Your task to perform on an android device: Show me popular games on the Play Store Image 0: 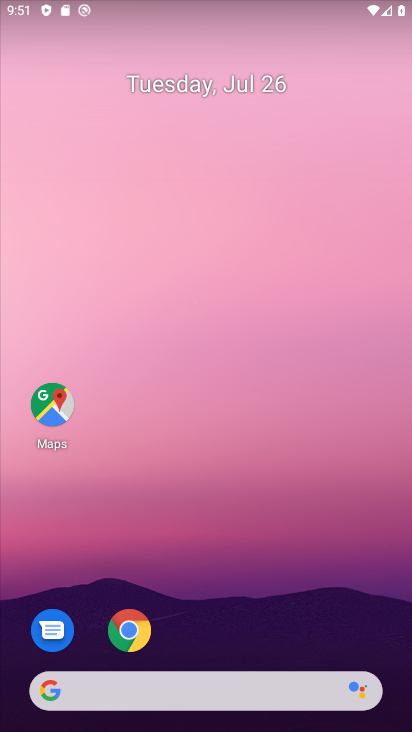
Step 0: drag from (359, 630) to (332, 146)
Your task to perform on an android device: Show me popular games on the Play Store Image 1: 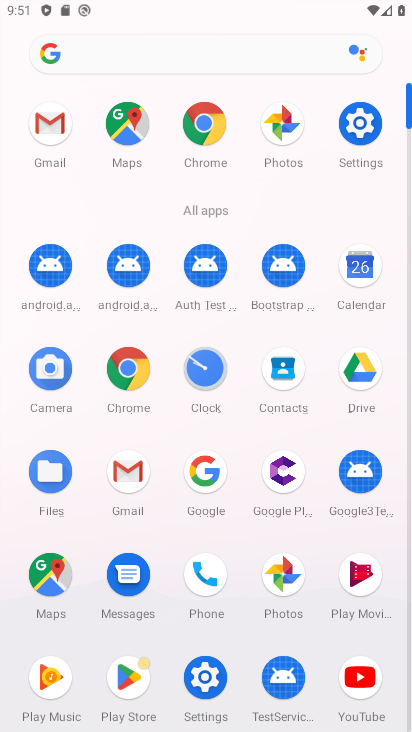
Step 1: click (128, 673)
Your task to perform on an android device: Show me popular games on the Play Store Image 2: 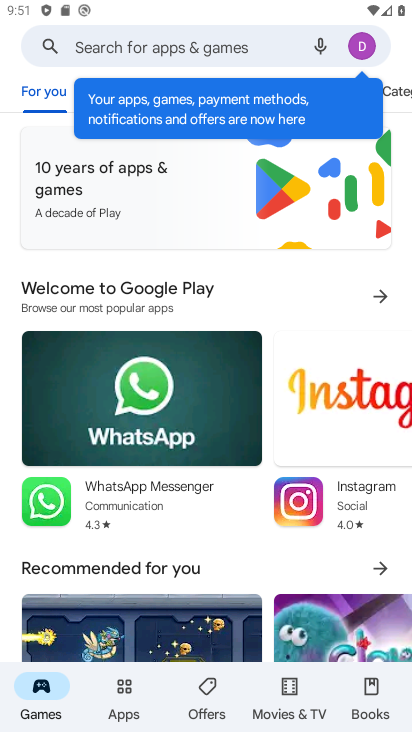
Step 2: drag from (237, 573) to (222, 202)
Your task to perform on an android device: Show me popular games on the Play Store Image 3: 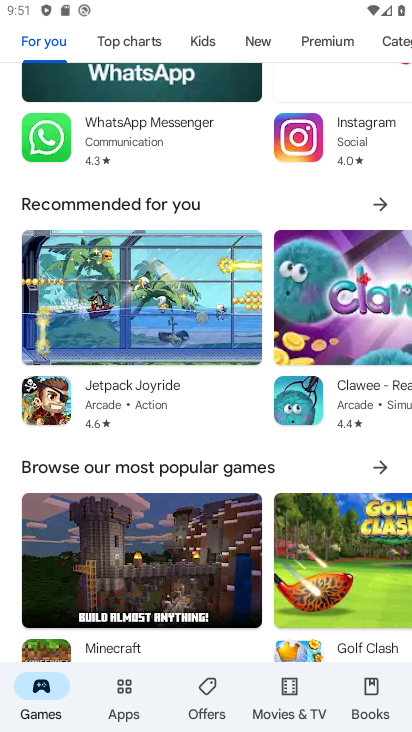
Step 3: drag from (267, 486) to (265, 211)
Your task to perform on an android device: Show me popular games on the Play Store Image 4: 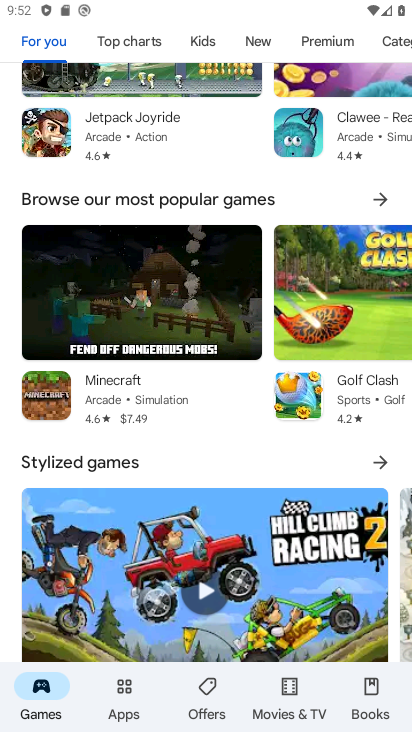
Step 4: click (378, 198)
Your task to perform on an android device: Show me popular games on the Play Store Image 5: 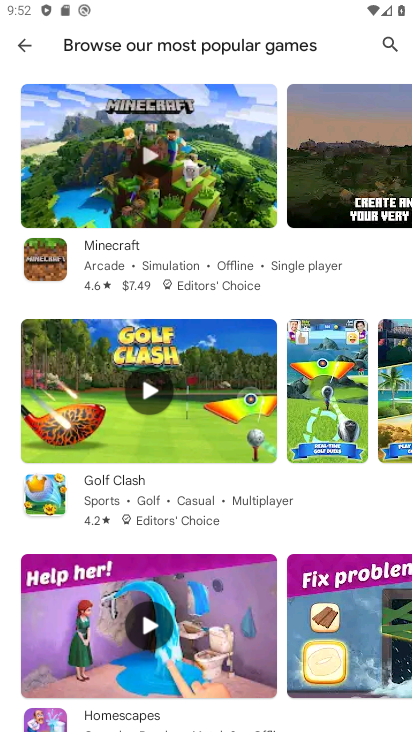
Step 5: task complete